Your task to perform on an android device: turn on wifi Image 0: 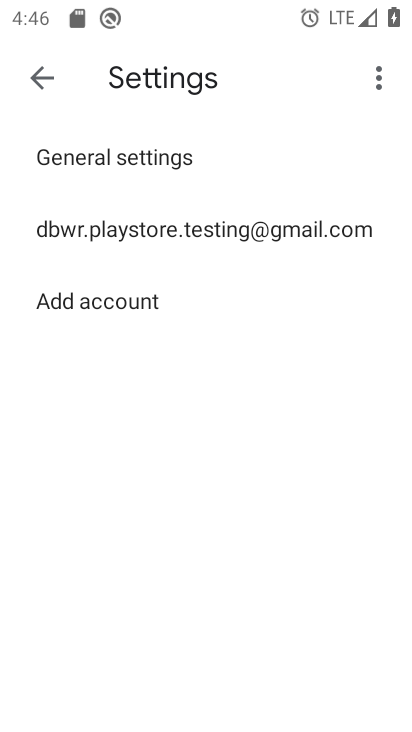
Step 0: press home button
Your task to perform on an android device: turn on wifi Image 1: 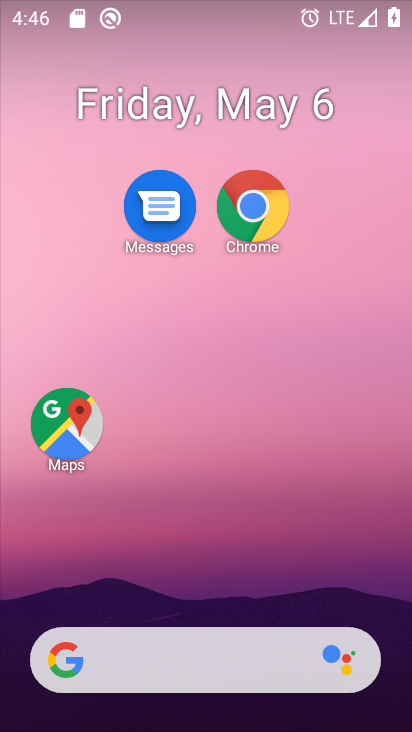
Step 1: drag from (207, 646) to (246, 322)
Your task to perform on an android device: turn on wifi Image 2: 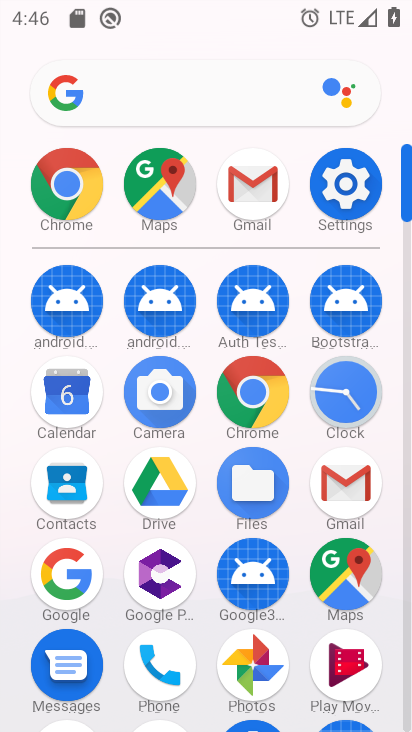
Step 2: click (329, 203)
Your task to perform on an android device: turn on wifi Image 3: 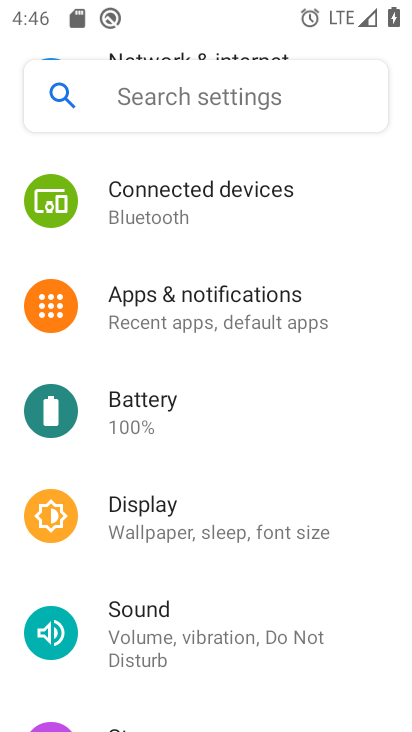
Step 3: drag from (250, 164) to (238, 532)
Your task to perform on an android device: turn on wifi Image 4: 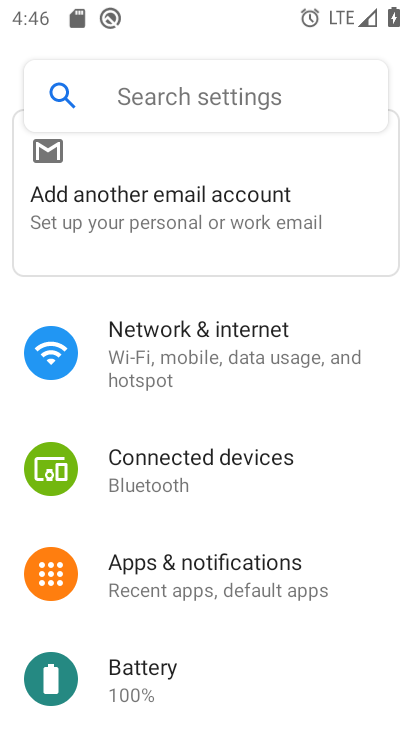
Step 4: click (209, 359)
Your task to perform on an android device: turn on wifi Image 5: 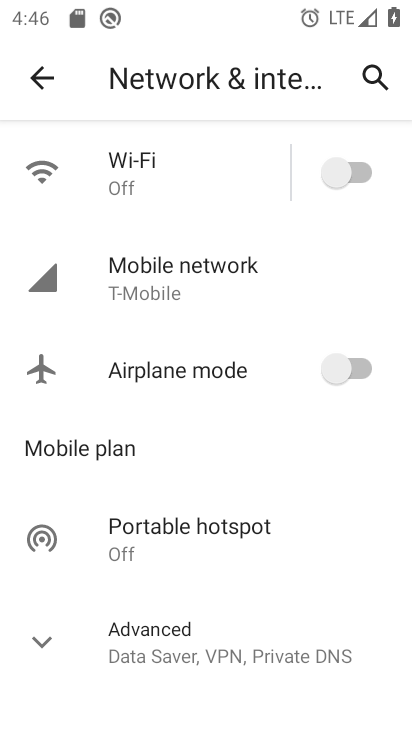
Step 5: click (358, 176)
Your task to perform on an android device: turn on wifi Image 6: 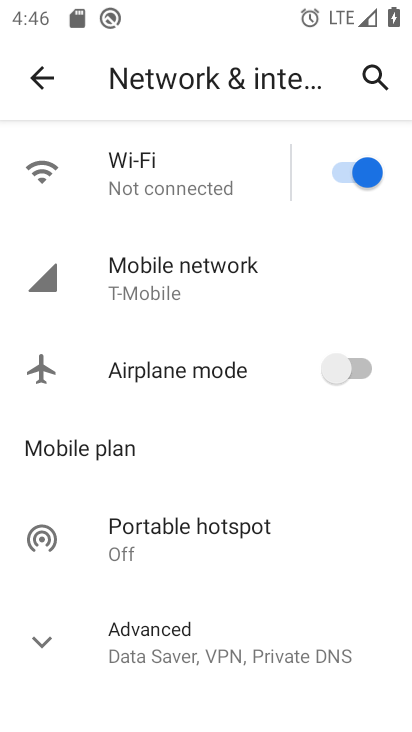
Step 6: task complete